Your task to perform on an android device: Open wifi settings Image 0: 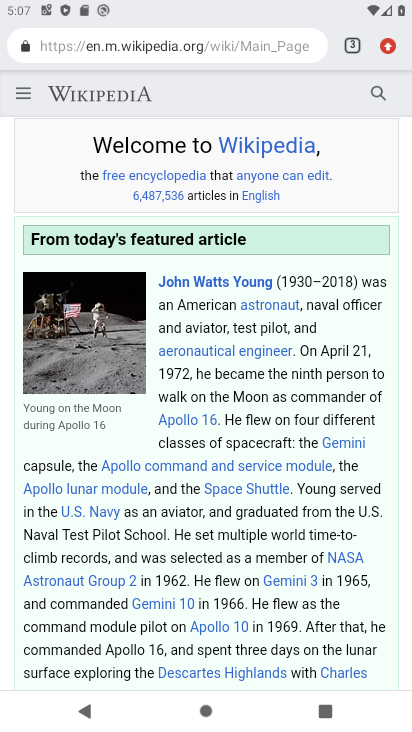
Step 0: press back button
Your task to perform on an android device: Open wifi settings Image 1: 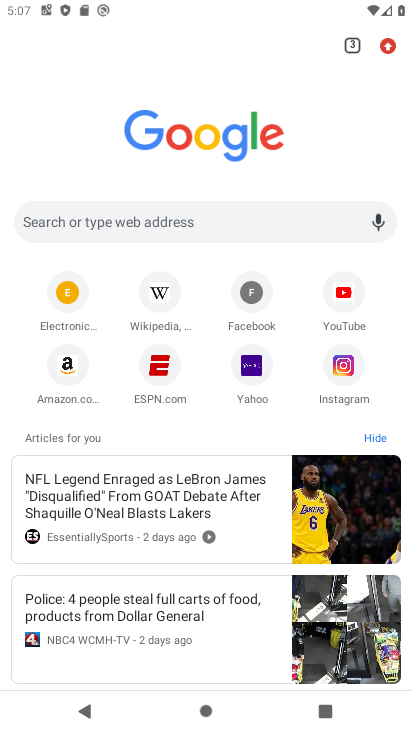
Step 1: drag from (98, 13) to (124, 530)
Your task to perform on an android device: Open wifi settings Image 2: 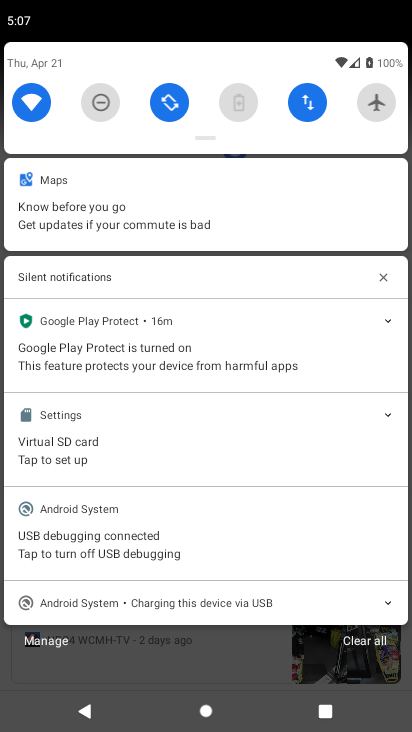
Step 2: click (26, 99)
Your task to perform on an android device: Open wifi settings Image 3: 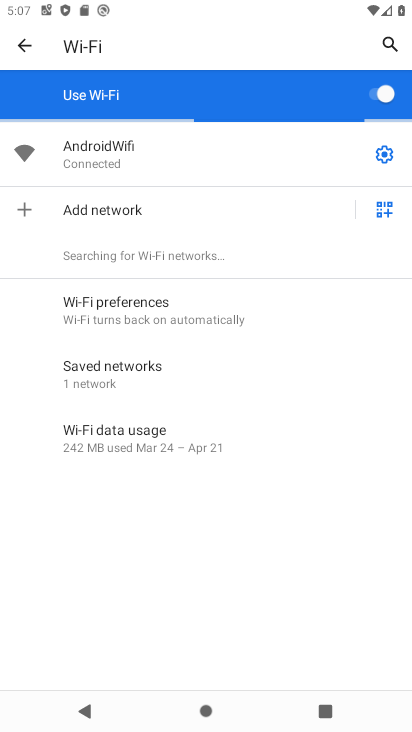
Step 3: task complete